Your task to perform on an android device: turn off priority inbox in the gmail app Image 0: 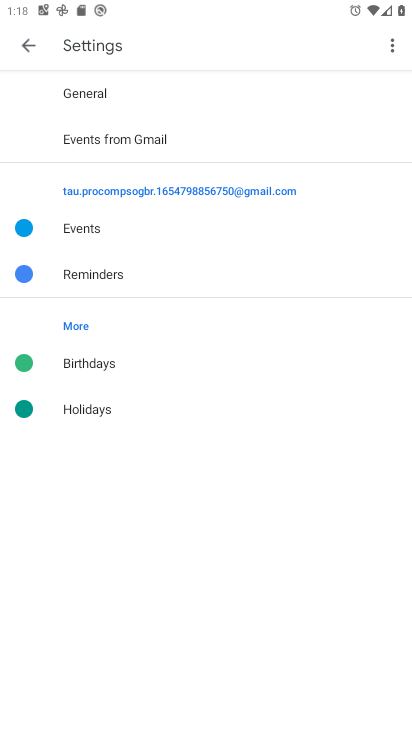
Step 0: click (396, 405)
Your task to perform on an android device: turn off priority inbox in the gmail app Image 1: 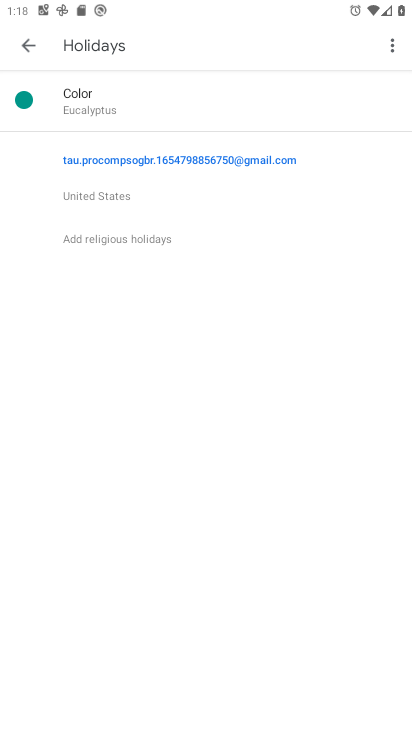
Step 1: press home button
Your task to perform on an android device: turn off priority inbox in the gmail app Image 2: 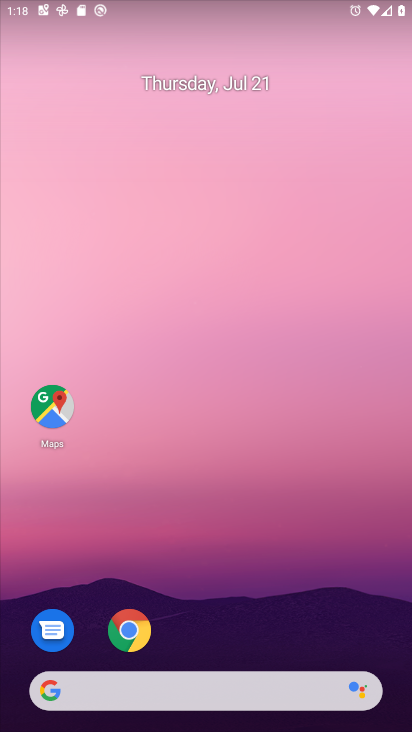
Step 2: drag from (233, 633) to (228, 428)
Your task to perform on an android device: turn off priority inbox in the gmail app Image 3: 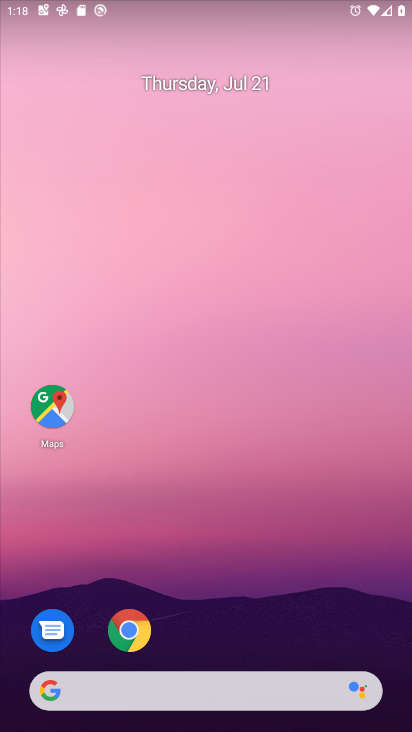
Step 3: drag from (178, 661) to (180, 416)
Your task to perform on an android device: turn off priority inbox in the gmail app Image 4: 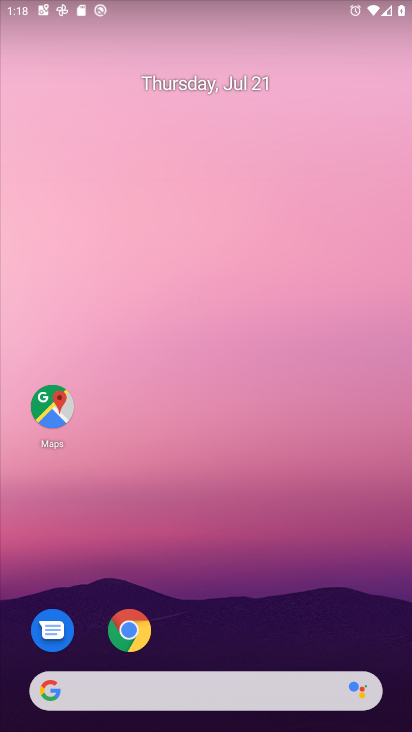
Step 4: drag from (188, 641) to (208, 228)
Your task to perform on an android device: turn off priority inbox in the gmail app Image 5: 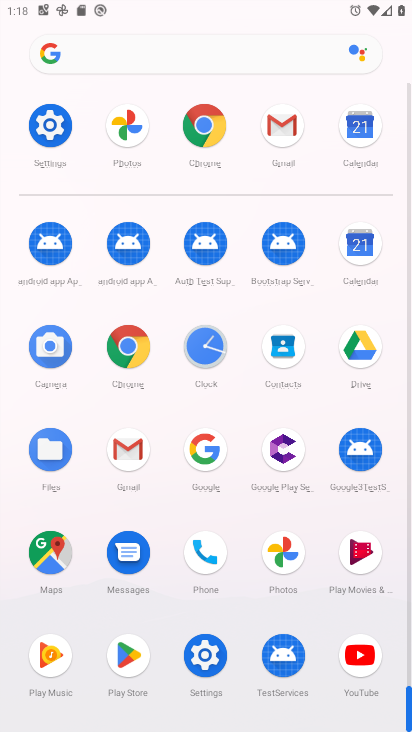
Step 5: click (124, 441)
Your task to perform on an android device: turn off priority inbox in the gmail app Image 6: 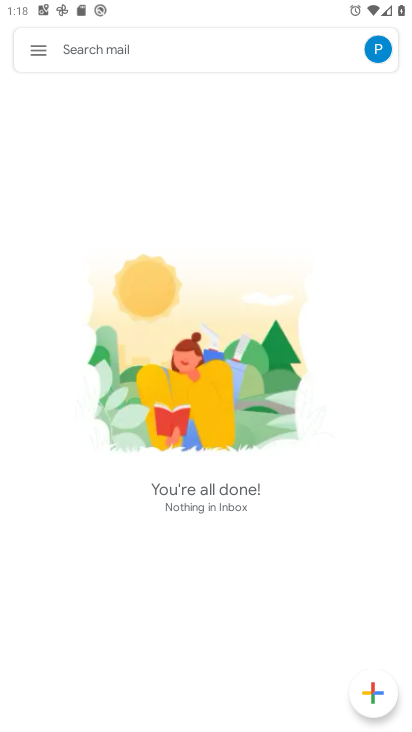
Step 6: click (33, 46)
Your task to perform on an android device: turn off priority inbox in the gmail app Image 7: 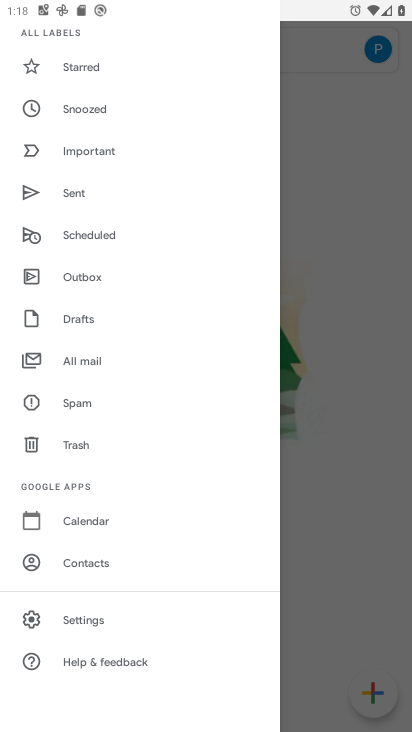
Step 7: click (103, 621)
Your task to perform on an android device: turn off priority inbox in the gmail app Image 8: 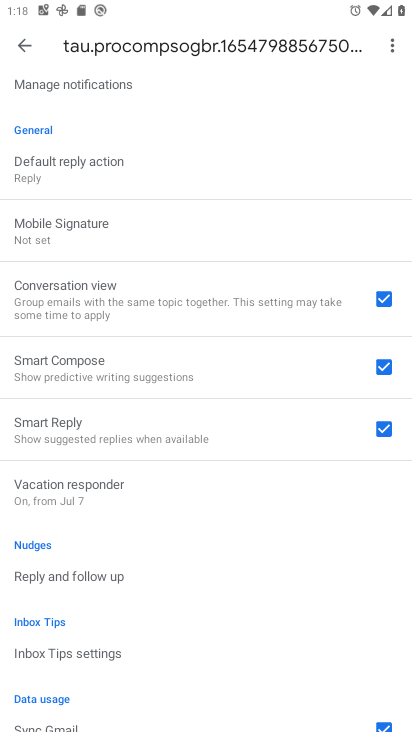
Step 8: drag from (82, 147) to (129, 701)
Your task to perform on an android device: turn off priority inbox in the gmail app Image 9: 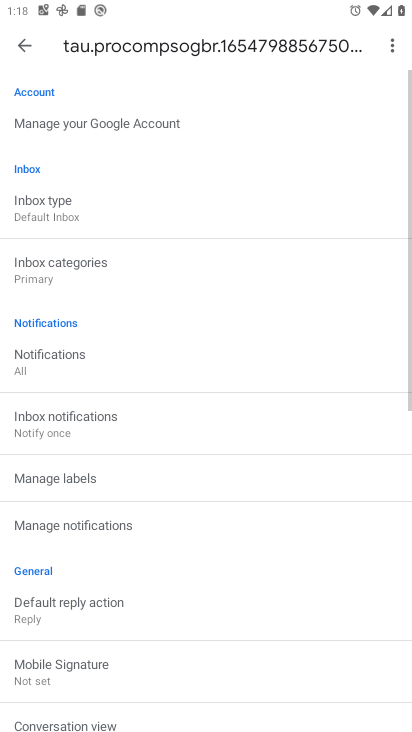
Step 9: click (94, 193)
Your task to perform on an android device: turn off priority inbox in the gmail app Image 10: 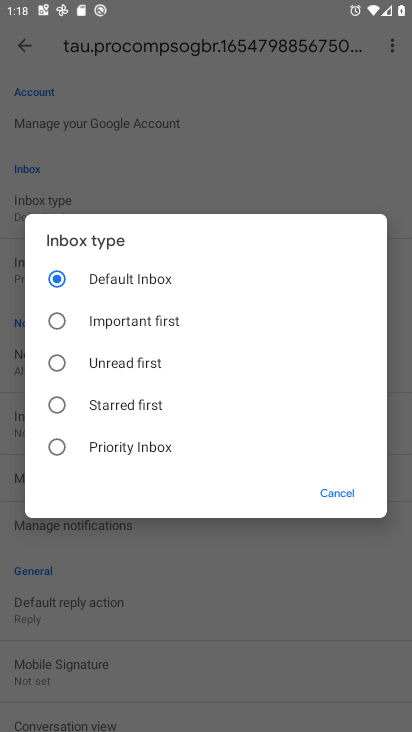
Step 10: click (150, 317)
Your task to perform on an android device: turn off priority inbox in the gmail app Image 11: 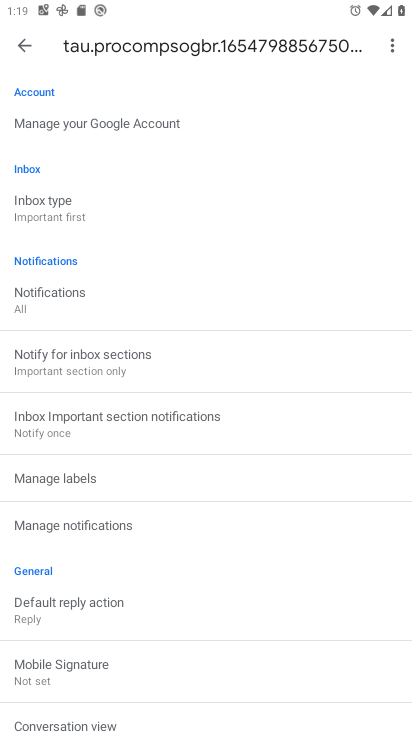
Step 11: task complete